Your task to perform on an android device: Search for pizza restaurants on Maps Image 0: 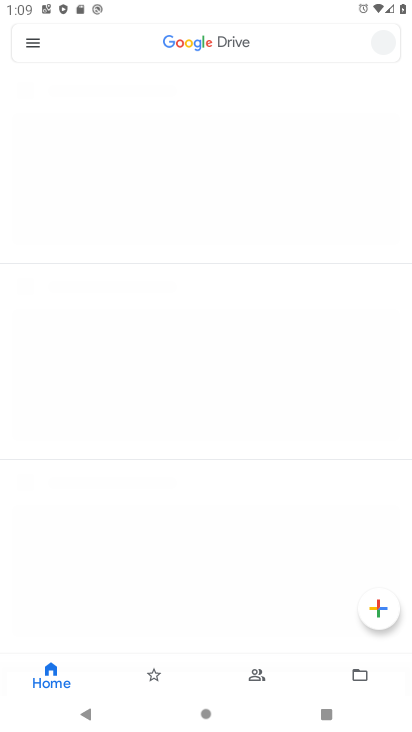
Step 0: click (137, 615)
Your task to perform on an android device: Search for pizza restaurants on Maps Image 1: 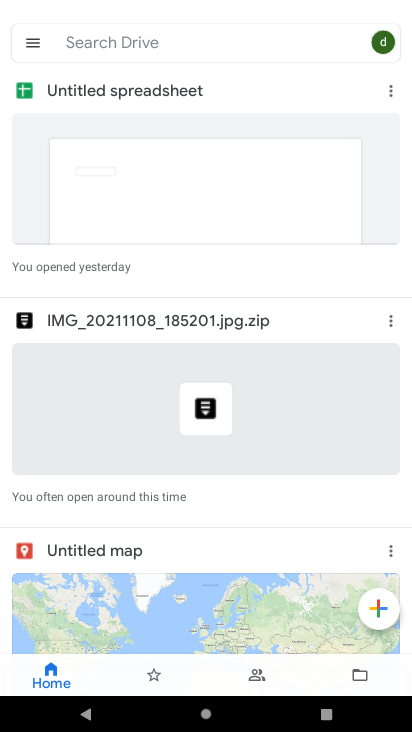
Step 1: press home button
Your task to perform on an android device: Search for pizza restaurants on Maps Image 2: 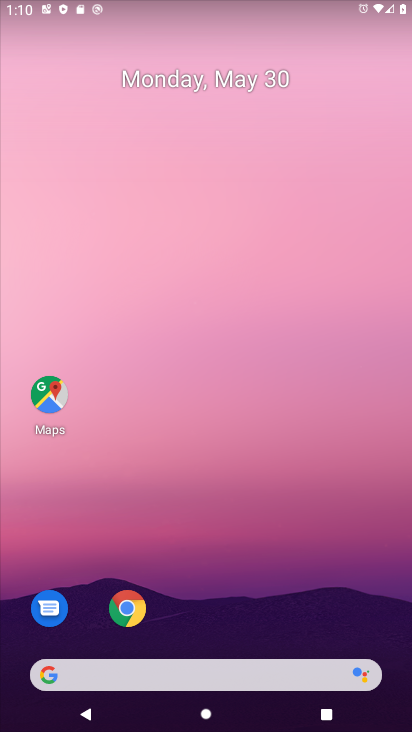
Step 2: click (56, 388)
Your task to perform on an android device: Search for pizza restaurants on Maps Image 3: 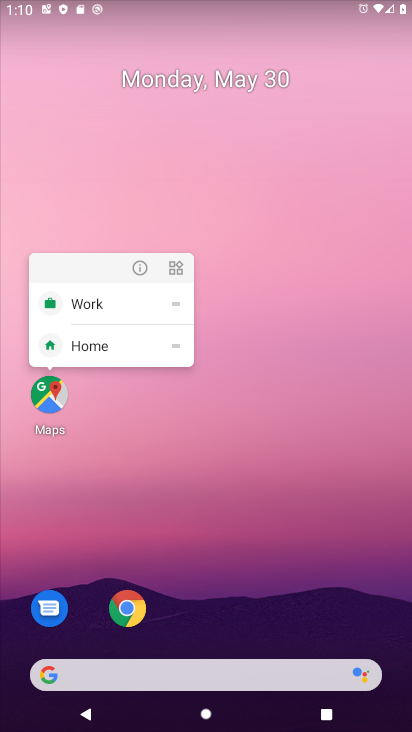
Step 3: click (57, 386)
Your task to perform on an android device: Search for pizza restaurants on Maps Image 4: 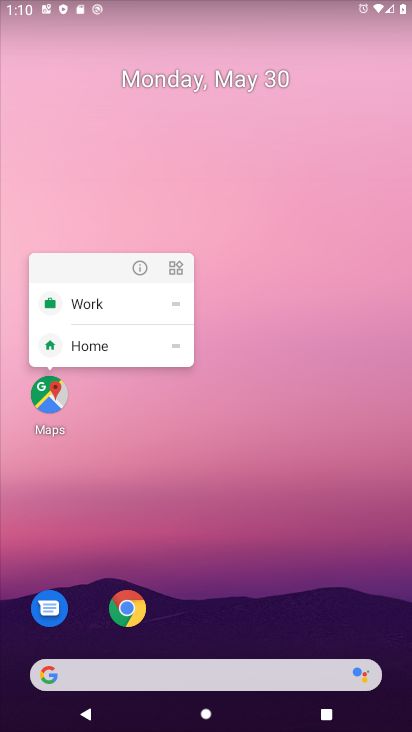
Step 4: click (57, 379)
Your task to perform on an android device: Search for pizza restaurants on Maps Image 5: 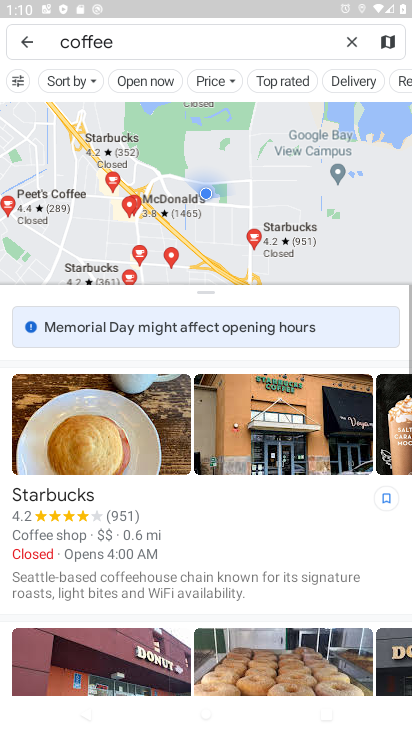
Step 5: click (357, 38)
Your task to perform on an android device: Search for pizza restaurants on Maps Image 6: 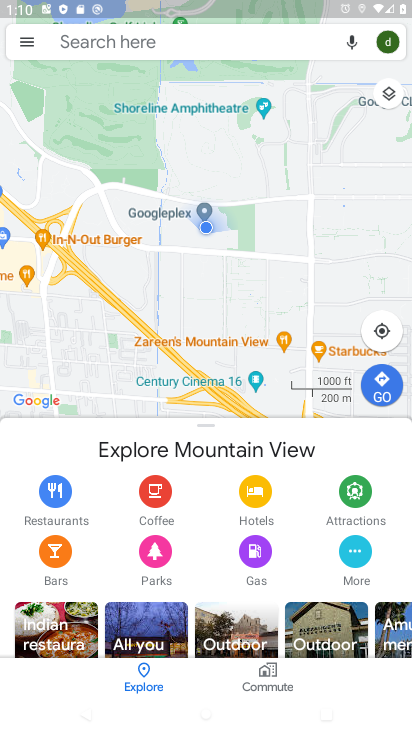
Step 6: click (245, 48)
Your task to perform on an android device: Search for pizza restaurants on Maps Image 7: 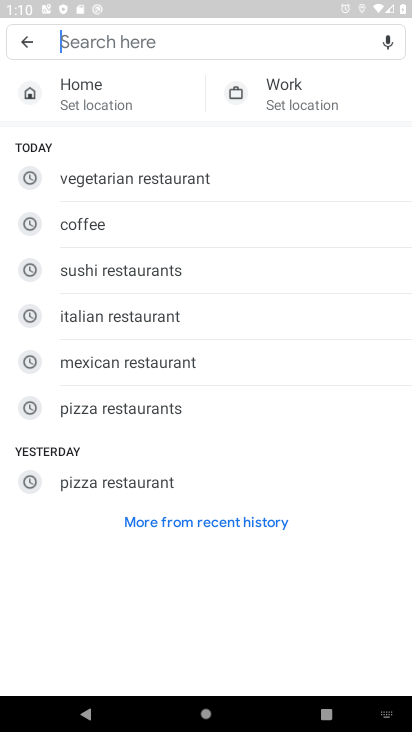
Step 7: click (99, 411)
Your task to perform on an android device: Search for pizza restaurants on Maps Image 8: 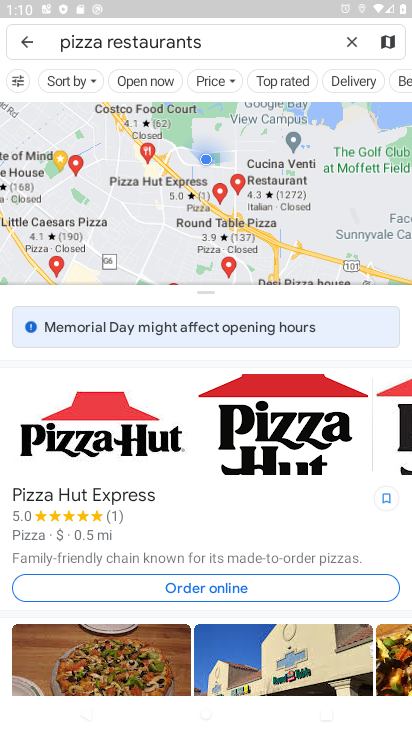
Step 8: task complete